Your task to perform on an android device: turn on wifi Image 0: 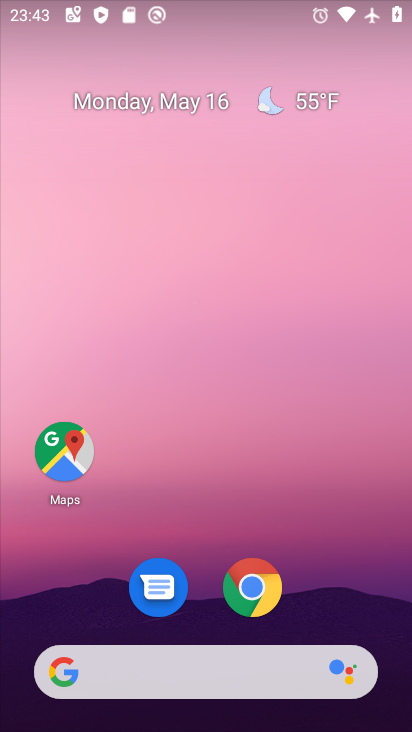
Step 0: drag from (310, 573) to (240, 11)
Your task to perform on an android device: turn on wifi Image 1: 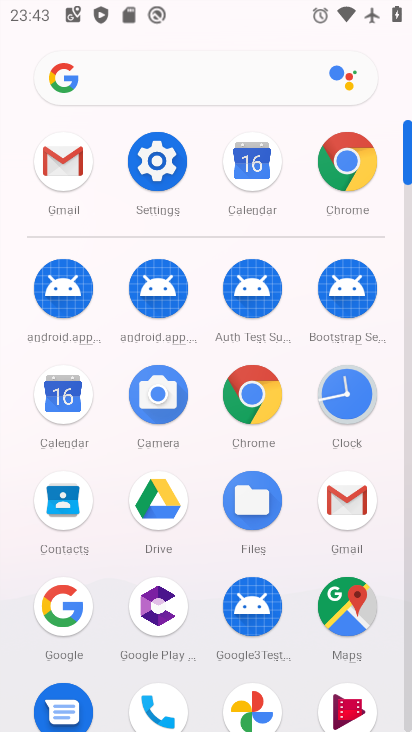
Step 1: drag from (15, 628) to (7, 248)
Your task to perform on an android device: turn on wifi Image 2: 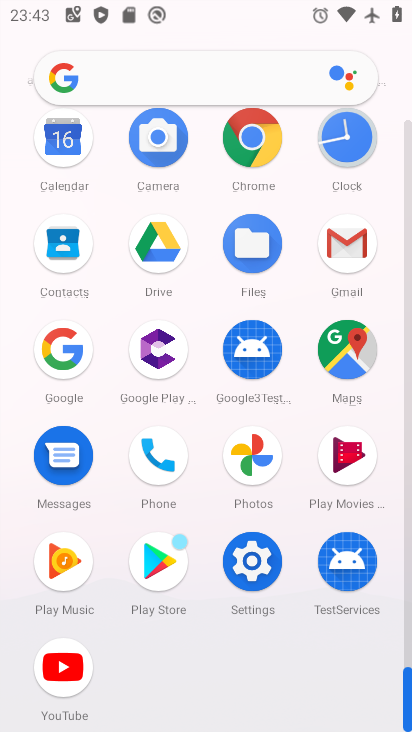
Step 2: click (252, 557)
Your task to perform on an android device: turn on wifi Image 3: 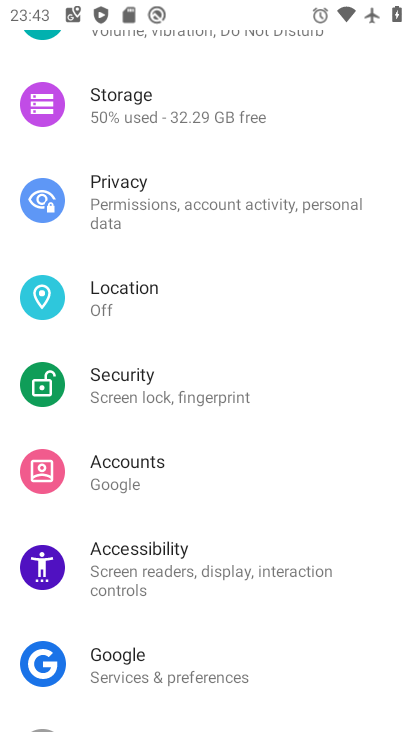
Step 3: drag from (278, 156) to (259, 636)
Your task to perform on an android device: turn on wifi Image 4: 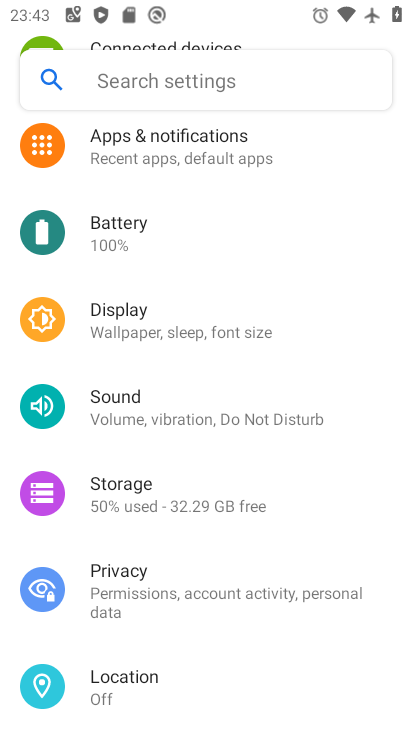
Step 4: drag from (237, 461) to (244, 589)
Your task to perform on an android device: turn on wifi Image 5: 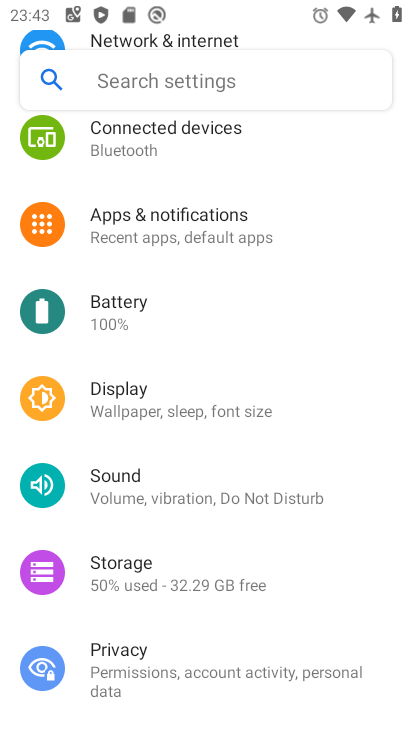
Step 5: drag from (240, 222) to (253, 592)
Your task to perform on an android device: turn on wifi Image 6: 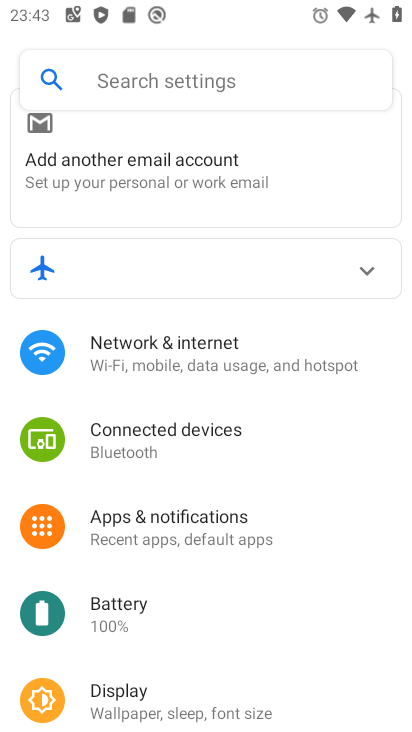
Step 6: click (212, 349)
Your task to perform on an android device: turn on wifi Image 7: 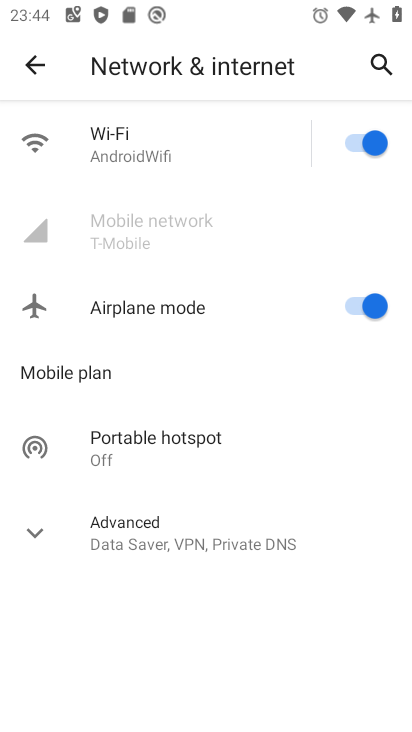
Step 7: task complete